Your task to perform on an android device: change the clock style Image 0: 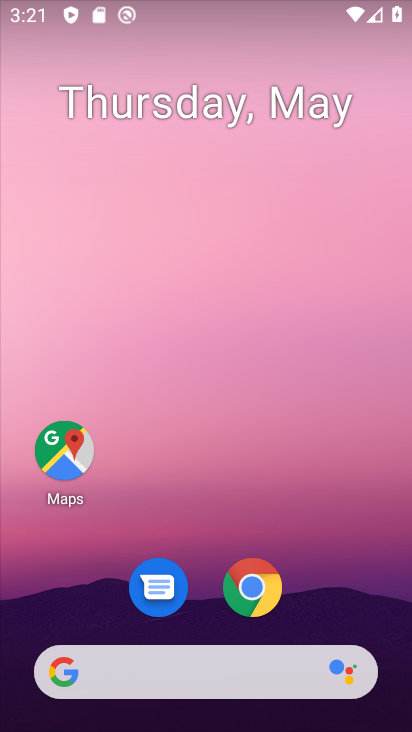
Step 0: drag from (210, 718) to (168, 208)
Your task to perform on an android device: change the clock style Image 1: 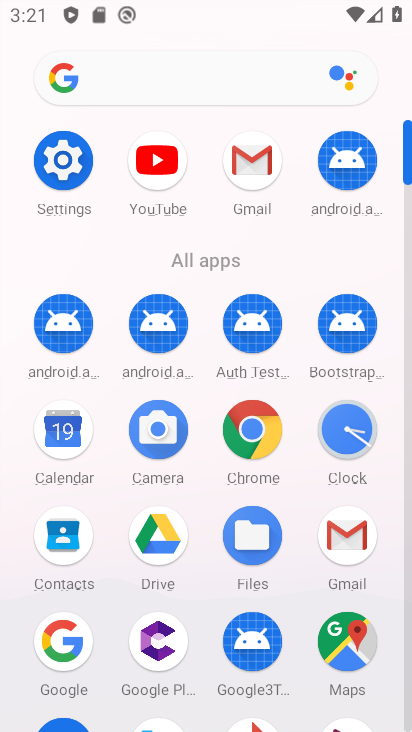
Step 1: click (342, 424)
Your task to perform on an android device: change the clock style Image 2: 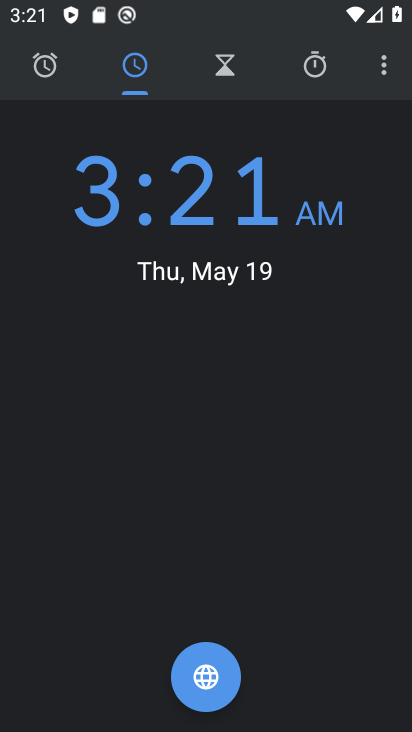
Step 2: click (384, 71)
Your task to perform on an android device: change the clock style Image 3: 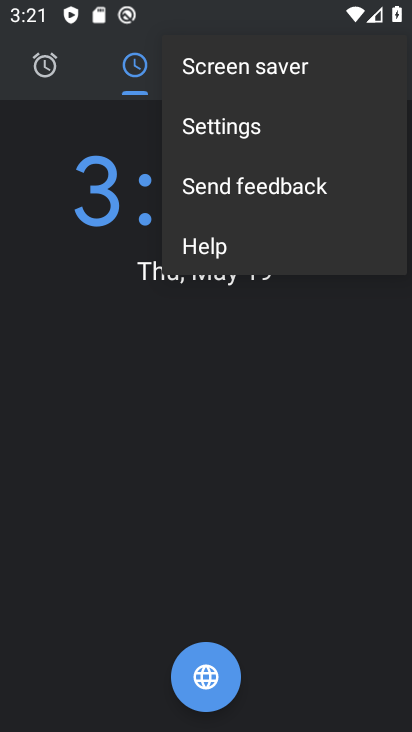
Step 3: click (229, 128)
Your task to perform on an android device: change the clock style Image 4: 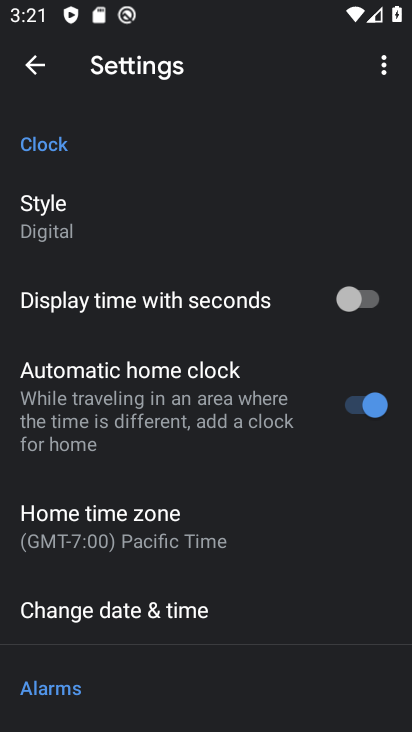
Step 4: click (36, 212)
Your task to perform on an android device: change the clock style Image 5: 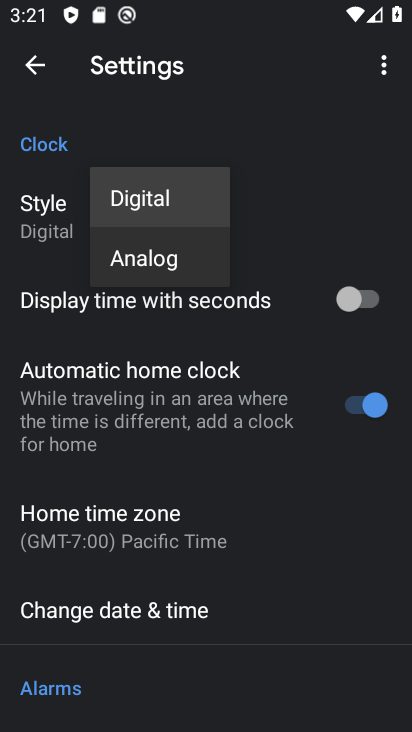
Step 5: click (109, 257)
Your task to perform on an android device: change the clock style Image 6: 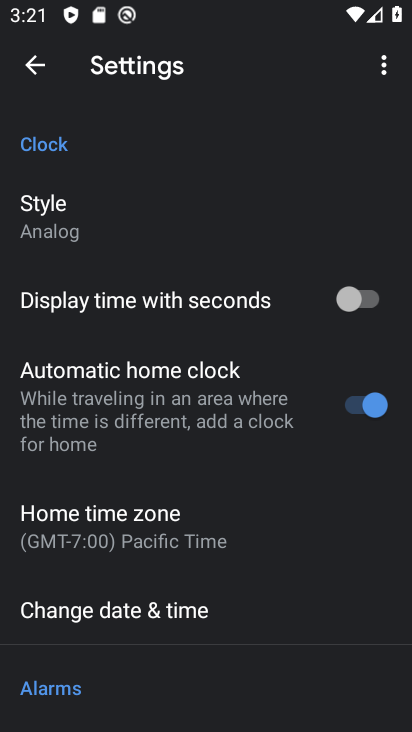
Step 6: task complete